Your task to perform on an android device: change the clock display to digital Image 0: 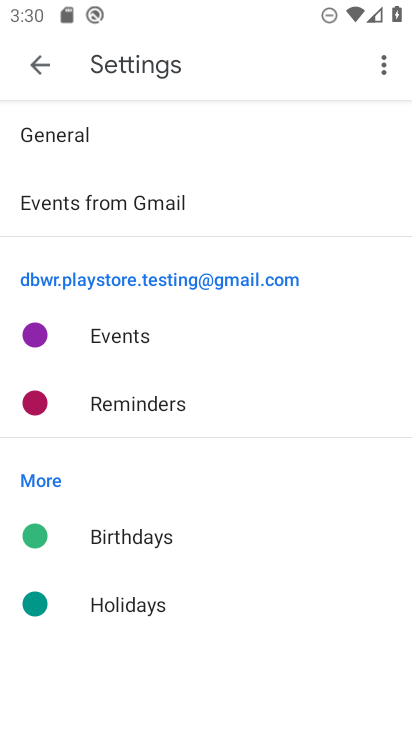
Step 0: press home button
Your task to perform on an android device: change the clock display to digital Image 1: 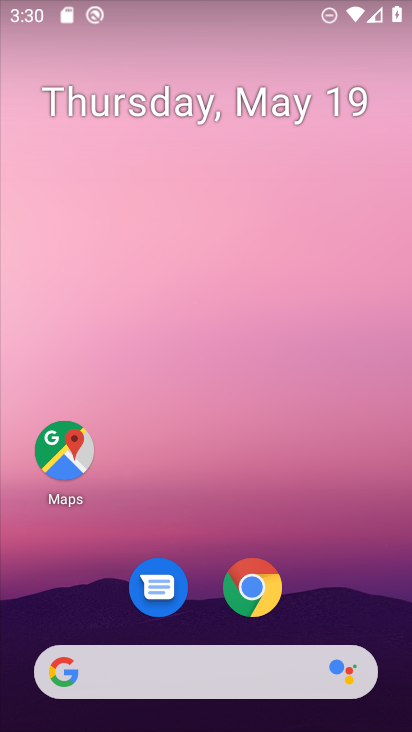
Step 1: drag from (372, 613) to (342, 181)
Your task to perform on an android device: change the clock display to digital Image 2: 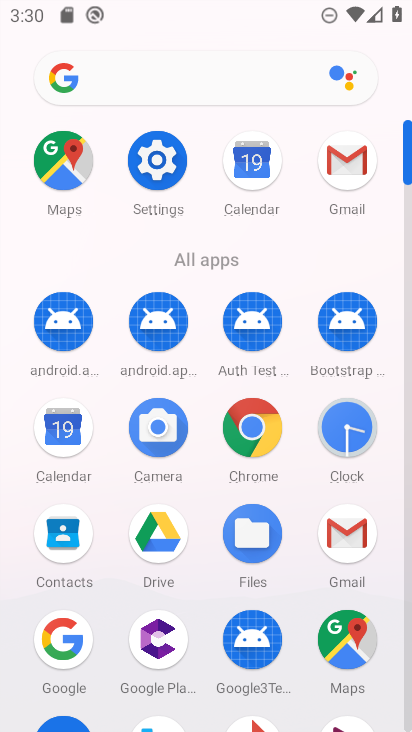
Step 2: click (358, 439)
Your task to perform on an android device: change the clock display to digital Image 3: 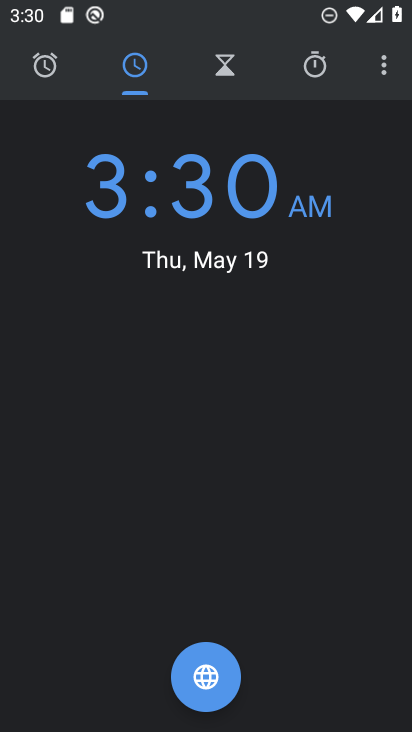
Step 3: click (383, 85)
Your task to perform on an android device: change the clock display to digital Image 4: 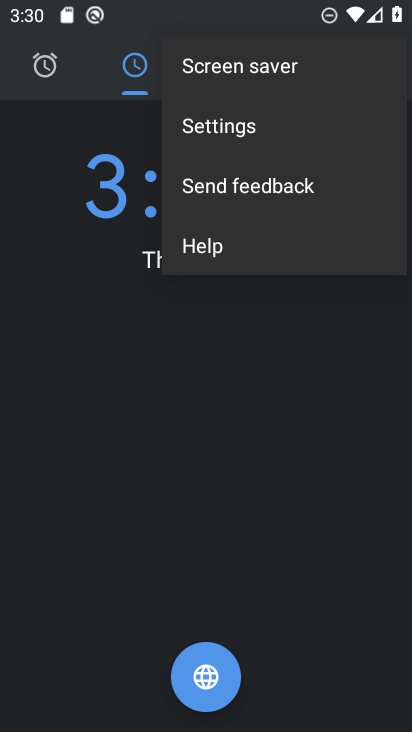
Step 4: click (305, 124)
Your task to perform on an android device: change the clock display to digital Image 5: 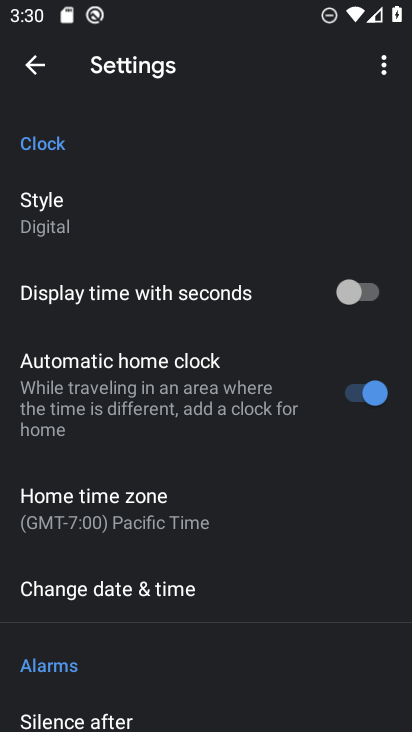
Step 5: task complete